Your task to perform on an android device: turn off location Image 0: 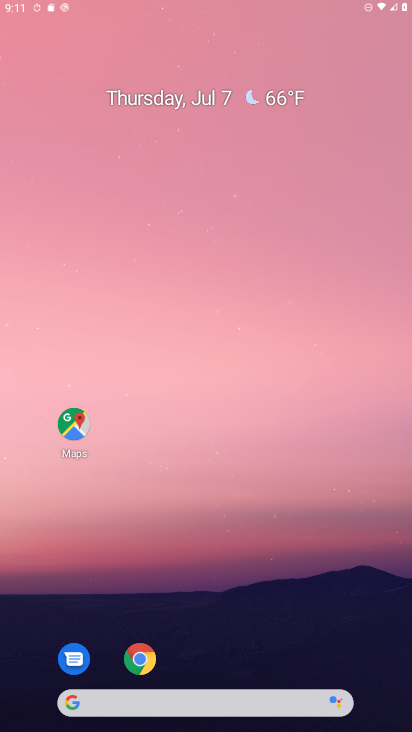
Step 0: drag from (393, 682) to (336, 287)
Your task to perform on an android device: turn off location Image 1: 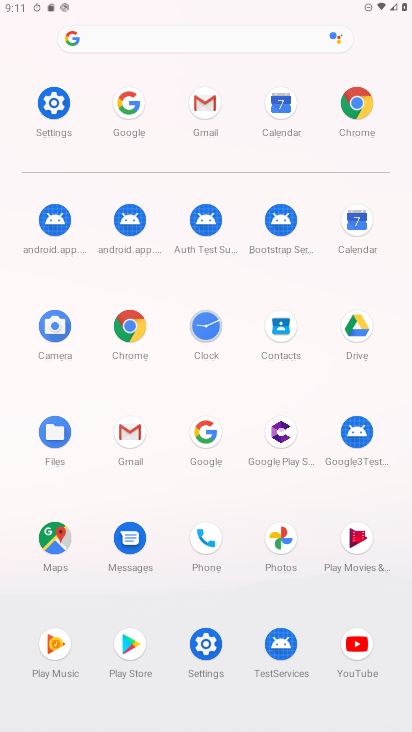
Step 1: click (43, 109)
Your task to perform on an android device: turn off location Image 2: 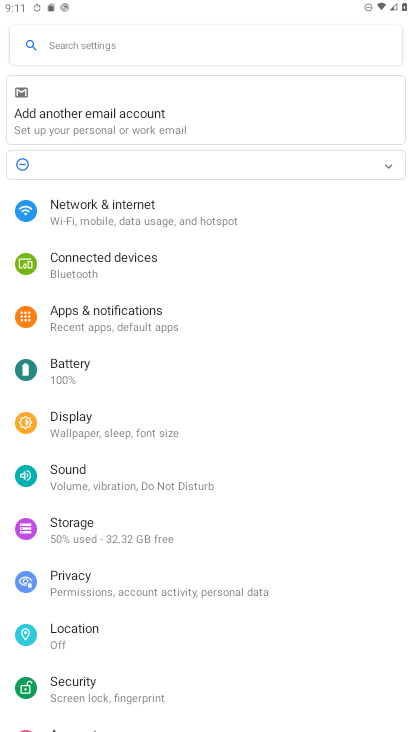
Step 2: click (117, 633)
Your task to perform on an android device: turn off location Image 3: 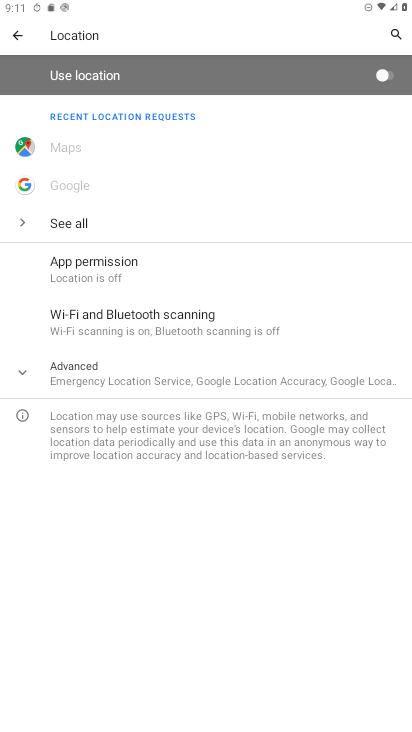
Step 3: task complete